Your task to perform on an android device: make emails show in primary in the gmail app Image 0: 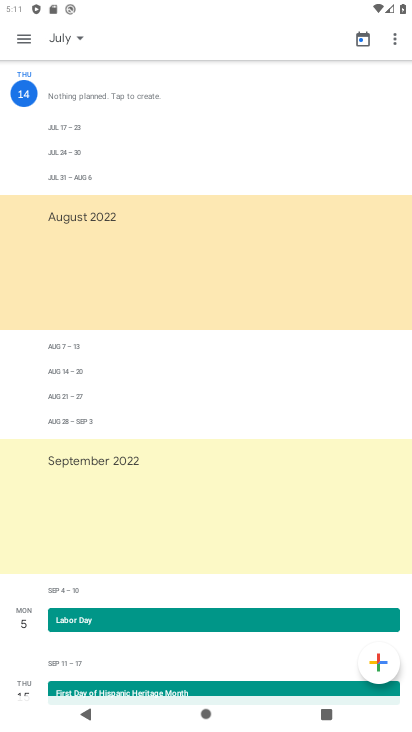
Step 0: press home button
Your task to perform on an android device: make emails show in primary in the gmail app Image 1: 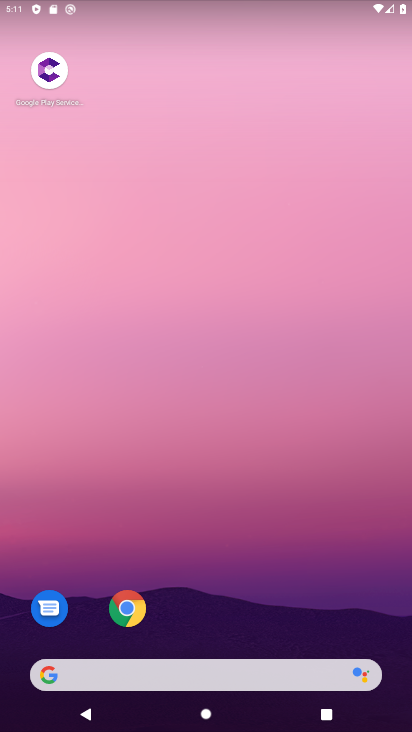
Step 1: drag from (186, 669) to (215, 137)
Your task to perform on an android device: make emails show in primary in the gmail app Image 2: 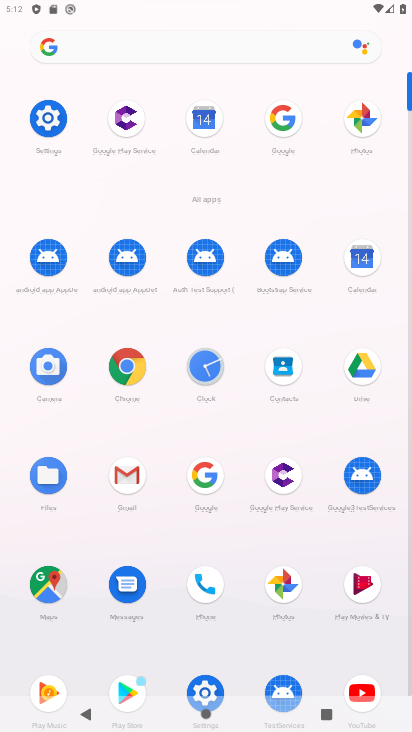
Step 2: click (124, 475)
Your task to perform on an android device: make emails show in primary in the gmail app Image 3: 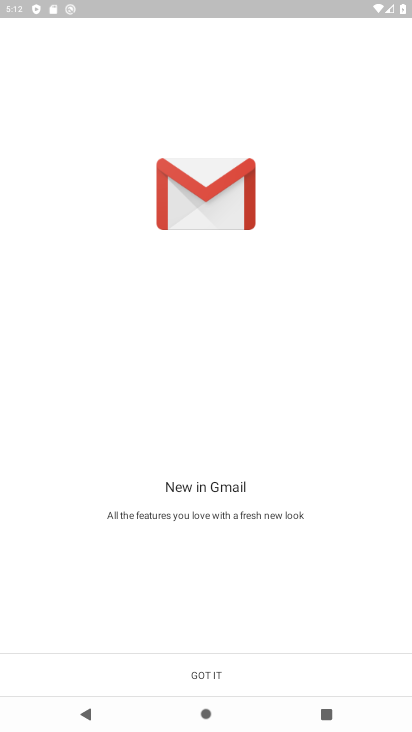
Step 3: click (222, 671)
Your task to perform on an android device: make emails show in primary in the gmail app Image 4: 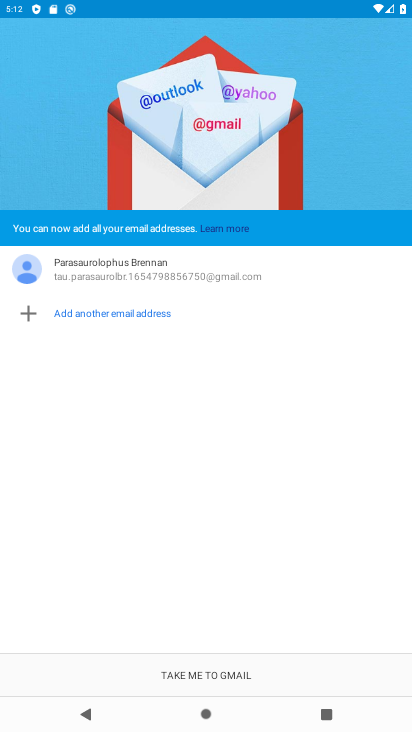
Step 4: click (222, 671)
Your task to perform on an android device: make emails show in primary in the gmail app Image 5: 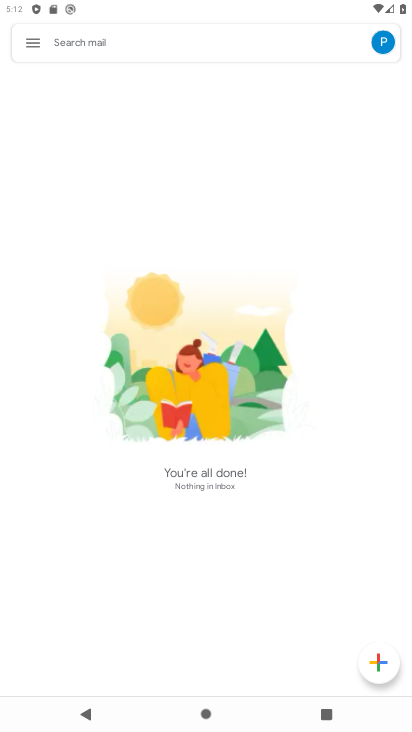
Step 5: click (31, 40)
Your task to perform on an android device: make emails show in primary in the gmail app Image 6: 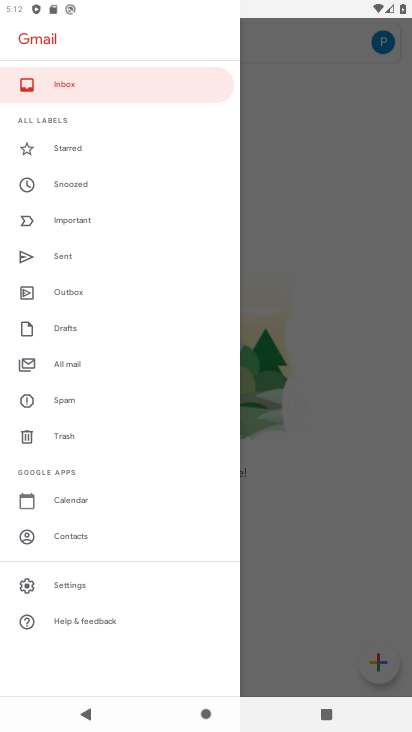
Step 6: click (75, 581)
Your task to perform on an android device: make emails show in primary in the gmail app Image 7: 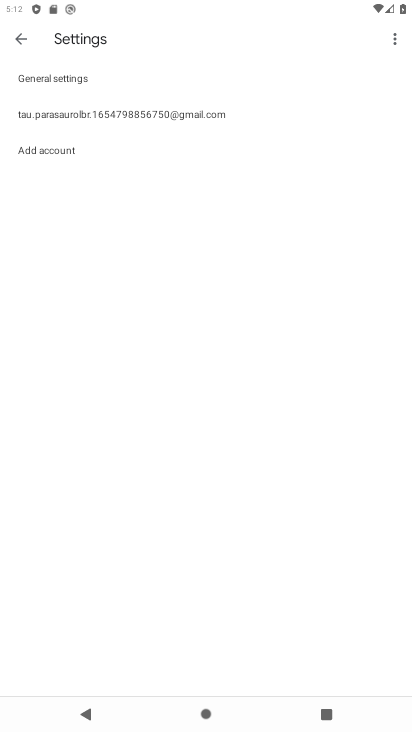
Step 7: click (134, 114)
Your task to perform on an android device: make emails show in primary in the gmail app Image 8: 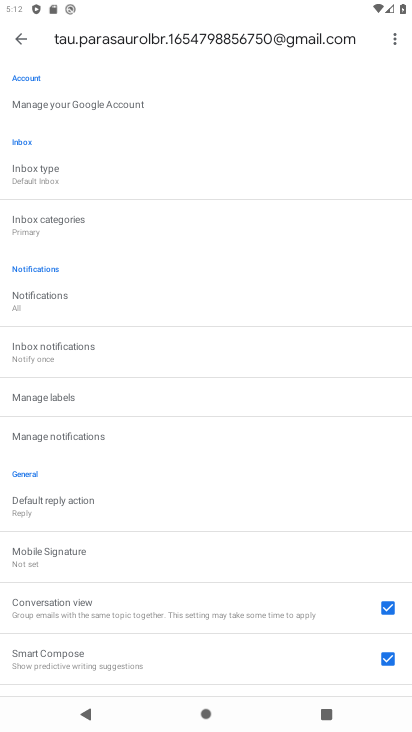
Step 8: click (60, 222)
Your task to perform on an android device: make emails show in primary in the gmail app Image 9: 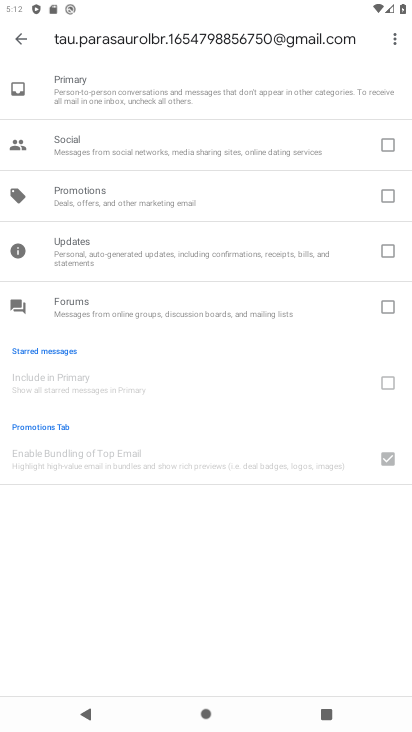
Step 9: task complete